Your task to perform on an android device: toggle airplane mode Image 0: 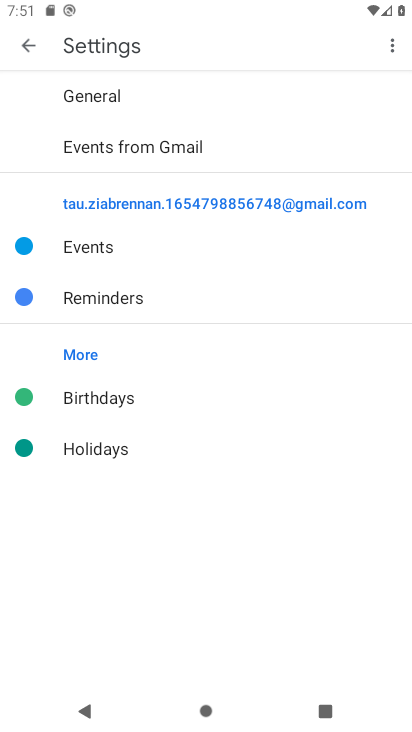
Step 0: press home button
Your task to perform on an android device: toggle airplane mode Image 1: 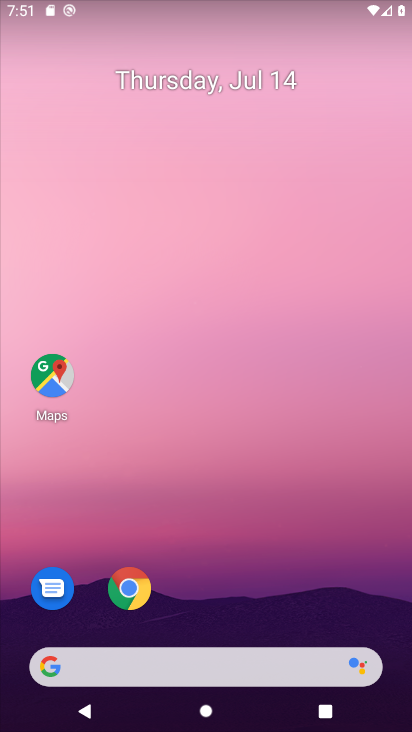
Step 1: drag from (238, 620) to (215, 15)
Your task to perform on an android device: toggle airplane mode Image 2: 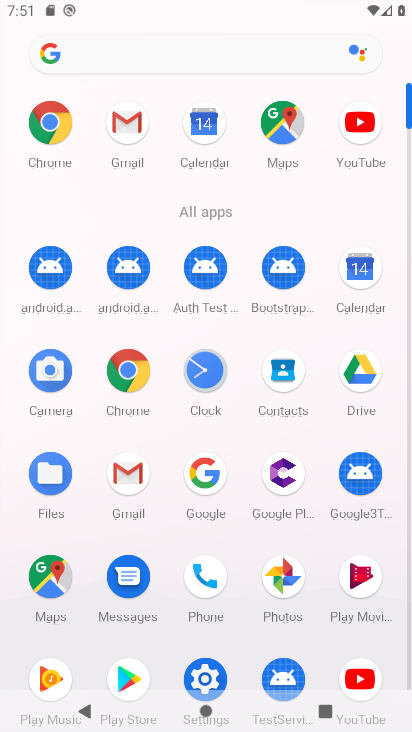
Step 2: click (214, 665)
Your task to perform on an android device: toggle airplane mode Image 3: 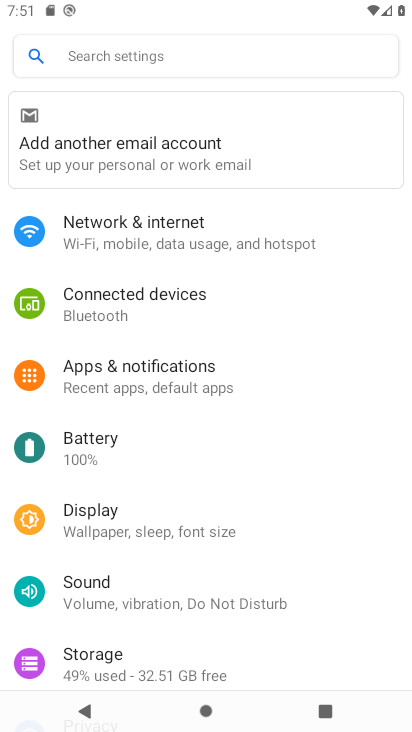
Step 3: click (151, 218)
Your task to perform on an android device: toggle airplane mode Image 4: 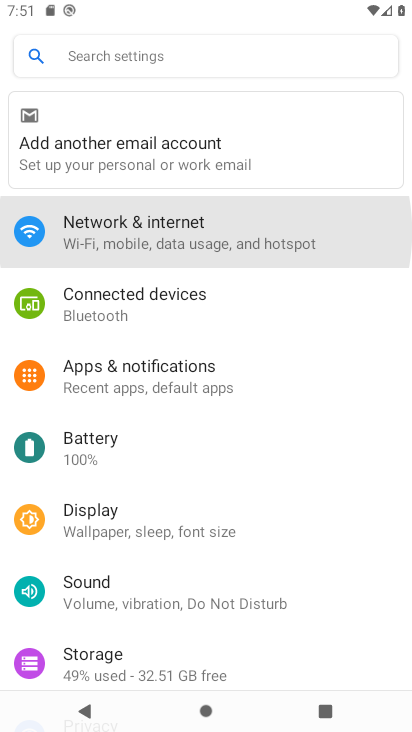
Step 4: click (151, 218)
Your task to perform on an android device: toggle airplane mode Image 5: 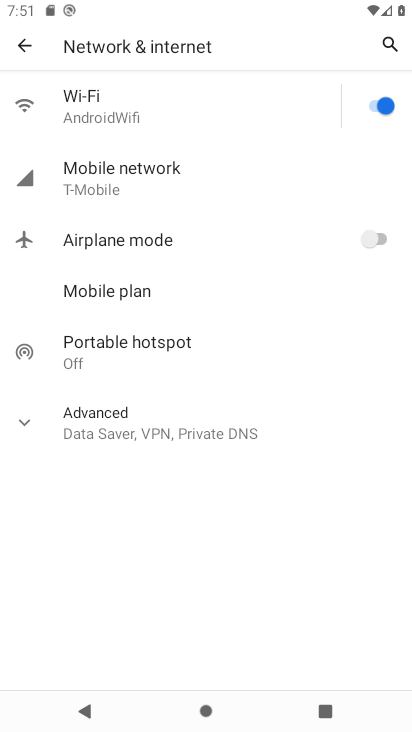
Step 5: click (168, 247)
Your task to perform on an android device: toggle airplane mode Image 6: 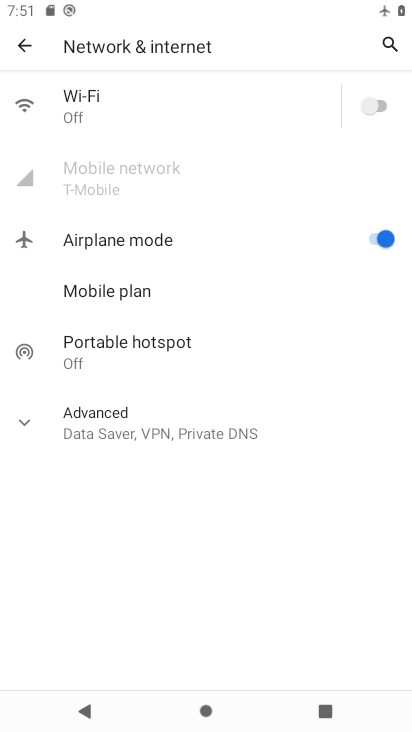
Step 6: task complete